Your task to perform on an android device: change the clock display to digital Image 0: 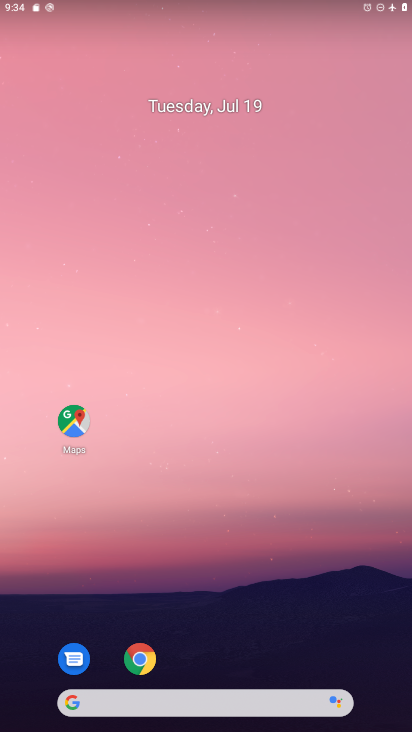
Step 0: drag from (264, 646) to (200, 164)
Your task to perform on an android device: change the clock display to digital Image 1: 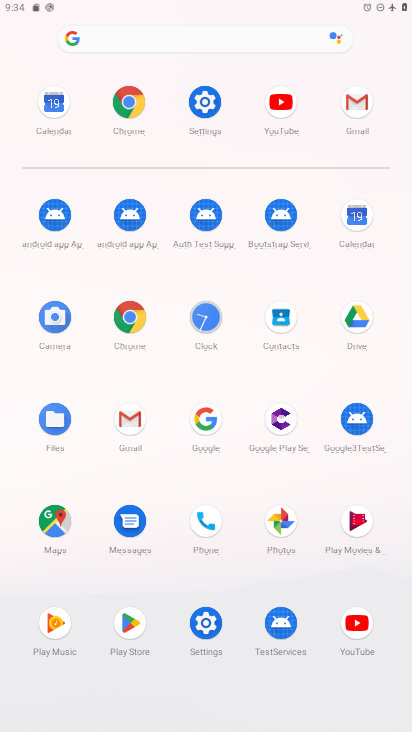
Step 1: click (200, 321)
Your task to perform on an android device: change the clock display to digital Image 2: 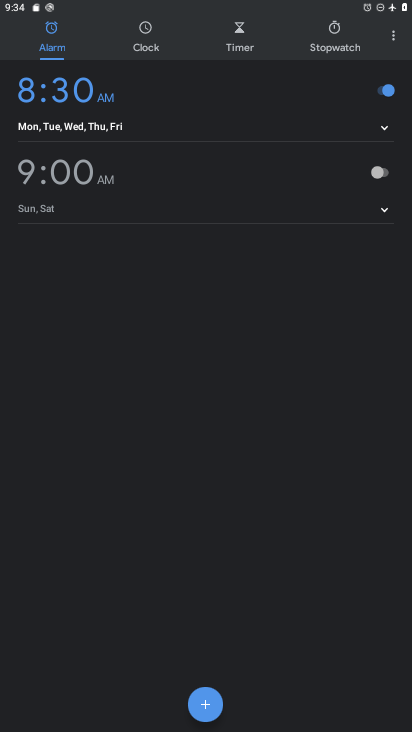
Step 2: click (393, 36)
Your task to perform on an android device: change the clock display to digital Image 3: 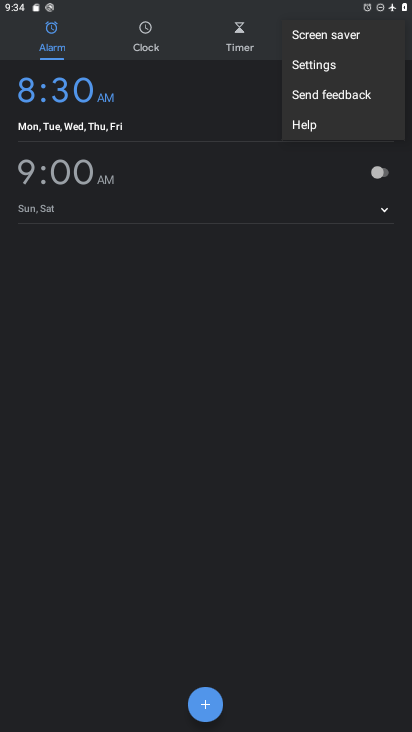
Step 3: click (319, 69)
Your task to perform on an android device: change the clock display to digital Image 4: 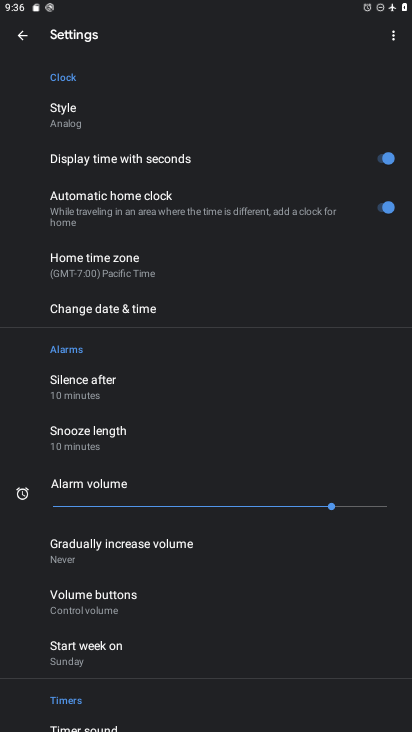
Step 4: click (70, 115)
Your task to perform on an android device: change the clock display to digital Image 5: 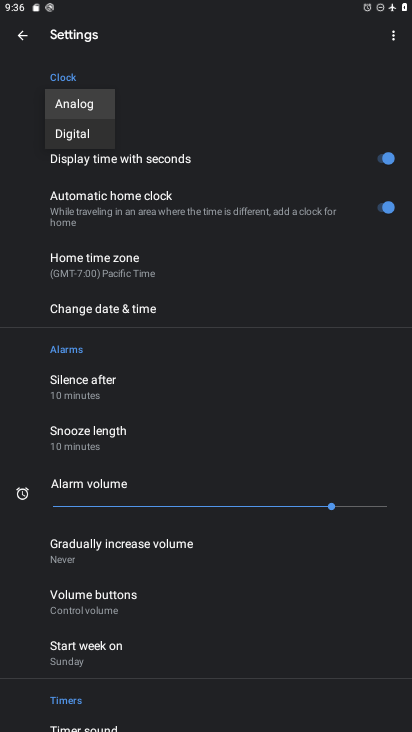
Step 5: click (83, 135)
Your task to perform on an android device: change the clock display to digital Image 6: 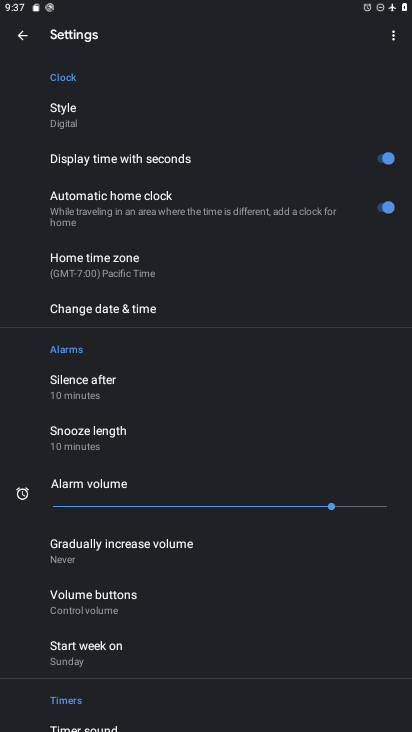
Step 6: task complete